Your task to perform on an android device: Go to sound settings Image 0: 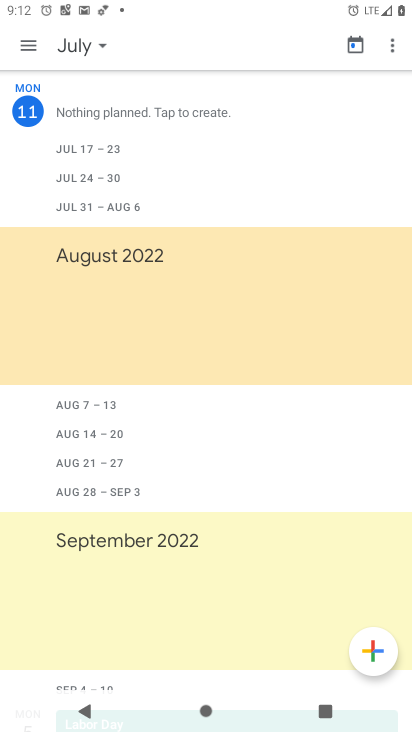
Step 0: press home button
Your task to perform on an android device: Go to sound settings Image 1: 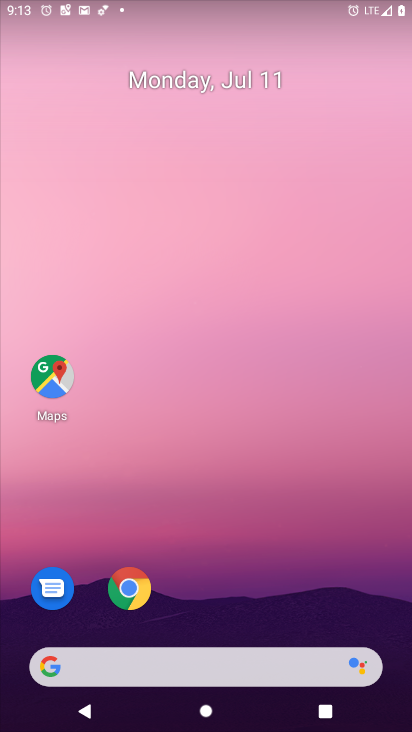
Step 1: drag from (235, 665) to (265, 15)
Your task to perform on an android device: Go to sound settings Image 2: 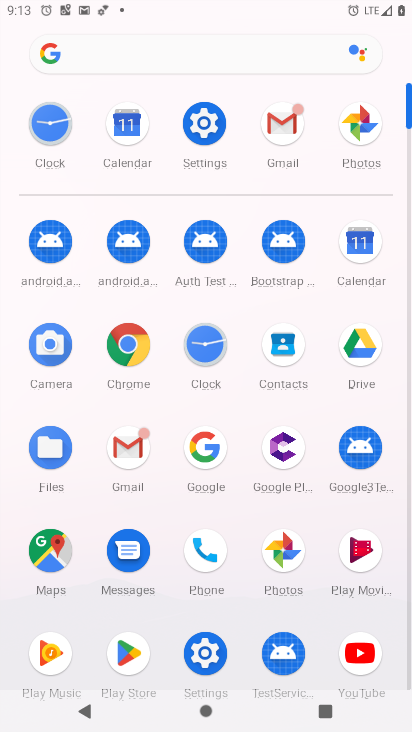
Step 2: click (205, 126)
Your task to perform on an android device: Go to sound settings Image 3: 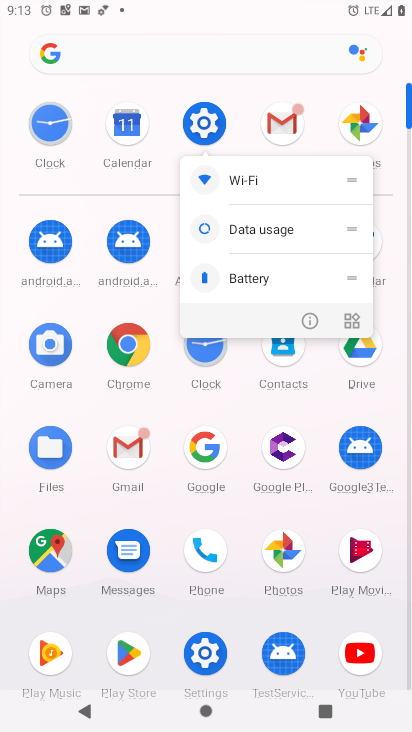
Step 3: click (205, 121)
Your task to perform on an android device: Go to sound settings Image 4: 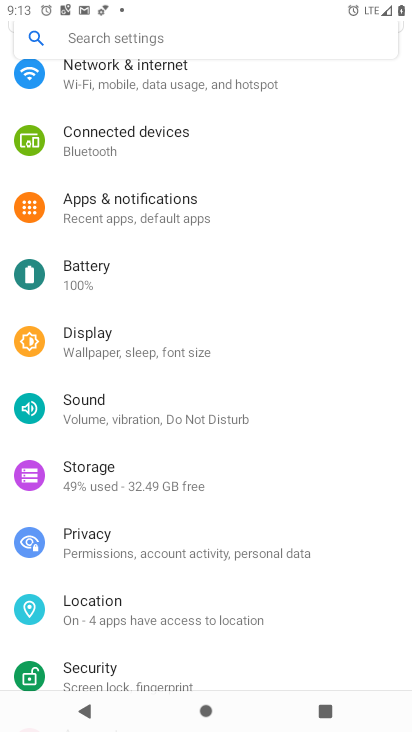
Step 4: click (124, 411)
Your task to perform on an android device: Go to sound settings Image 5: 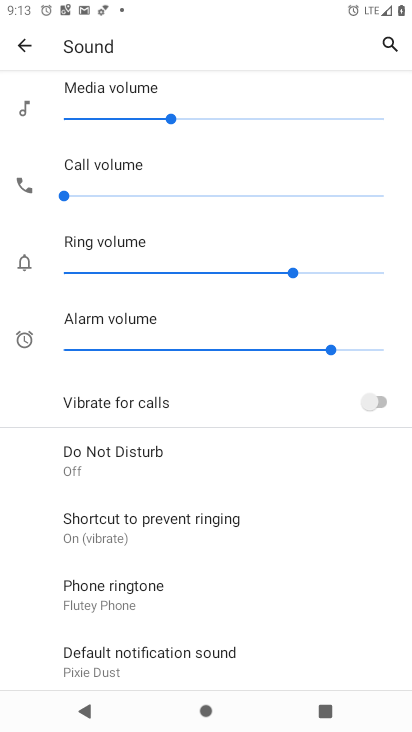
Step 5: task complete